Your task to perform on an android device: Open accessibility settings Image 0: 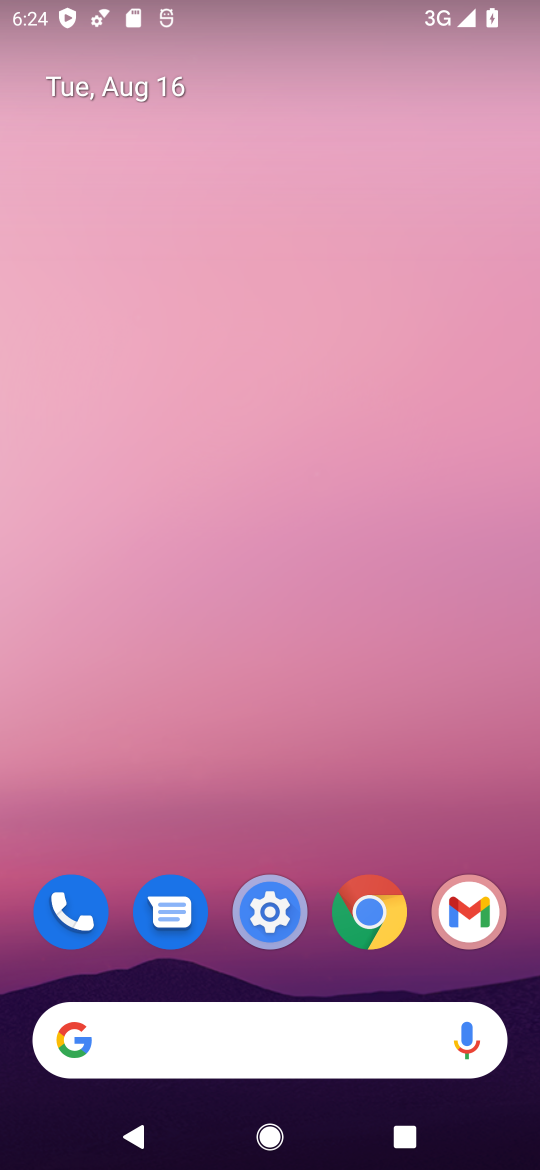
Step 0: click (271, 915)
Your task to perform on an android device: Open accessibility settings Image 1: 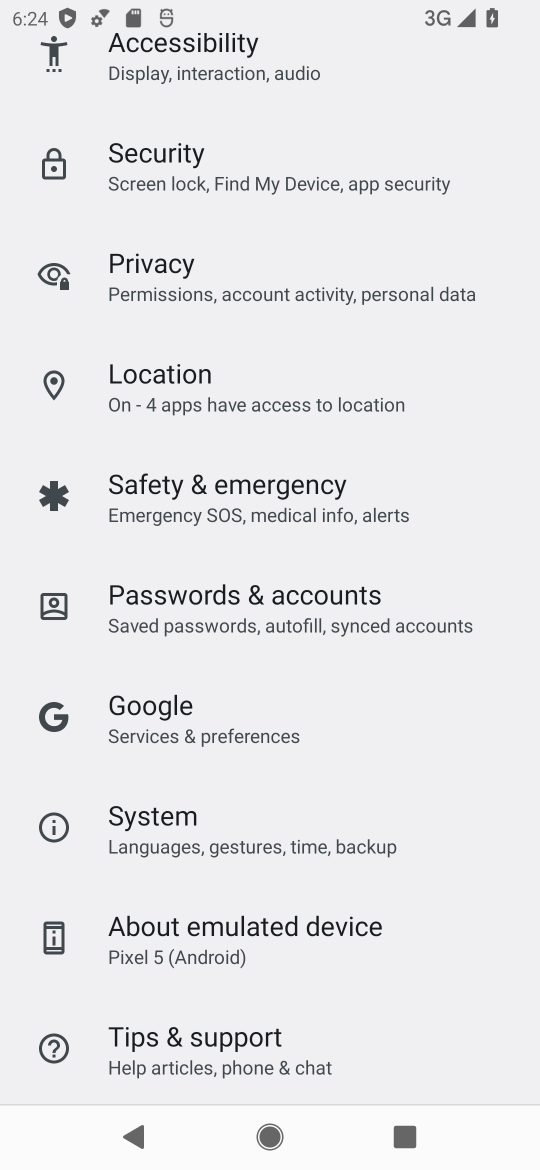
Step 1: drag from (406, 359) to (434, 832)
Your task to perform on an android device: Open accessibility settings Image 2: 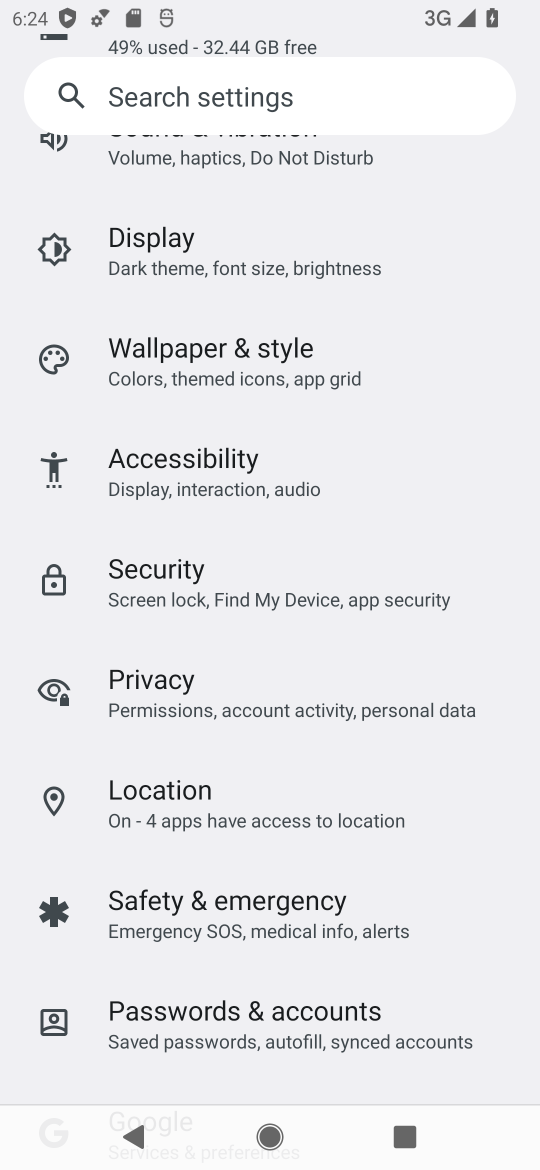
Step 2: click (146, 469)
Your task to perform on an android device: Open accessibility settings Image 3: 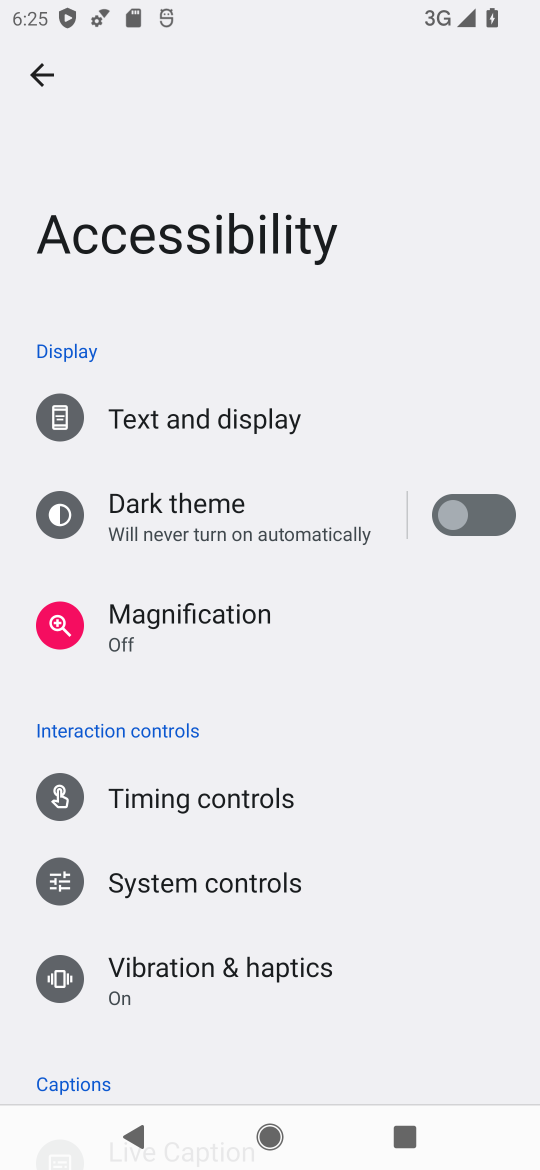
Step 3: task complete